Your task to perform on an android device: open chrome privacy settings Image 0: 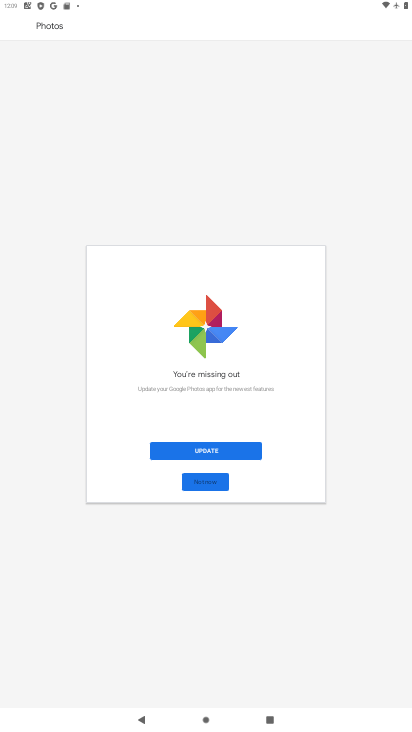
Step 0: press home button
Your task to perform on an android device: open chrome privacy settings Image 1: 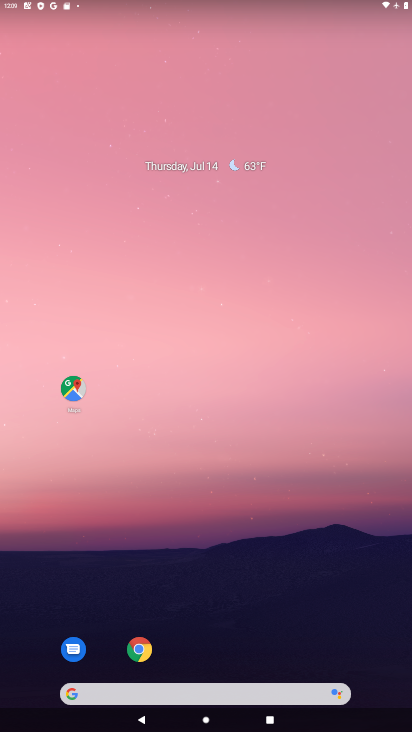
Step 1: click (138, 649)
Your task to perform on an android device: open chrome privacy settings Image 2: 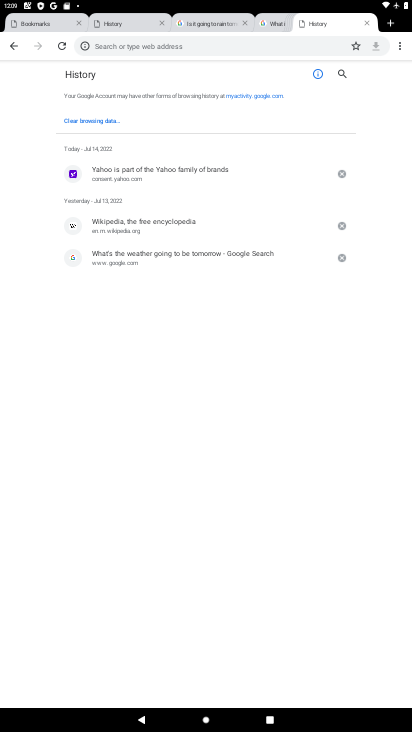
Step 2: click (398, 38)
Your task to perform on an android device: open chrome privacy settings Image 3: 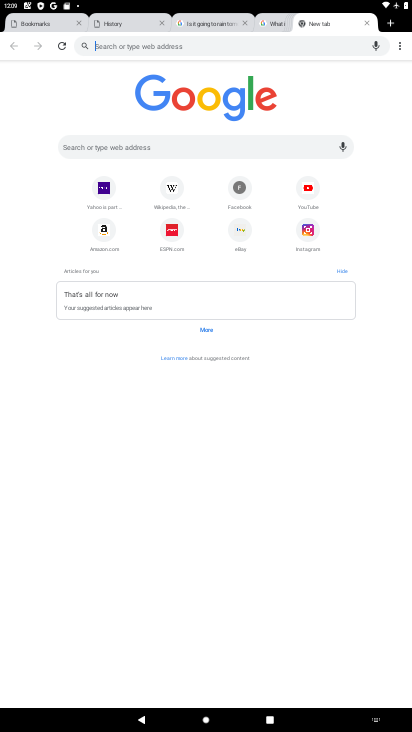
Step 3: click (400, 45)
Your task to perform on an android device: open chrome privacy settings Image 4: 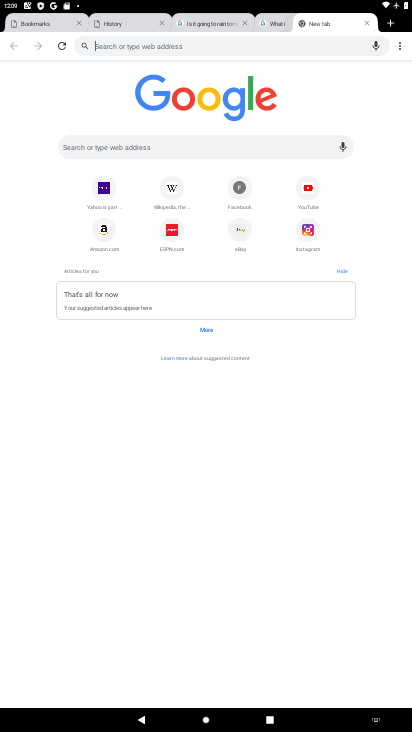
Step 4: click (400, 45)
Your task to perform on an android device: open chrome privacy settings Image 5: 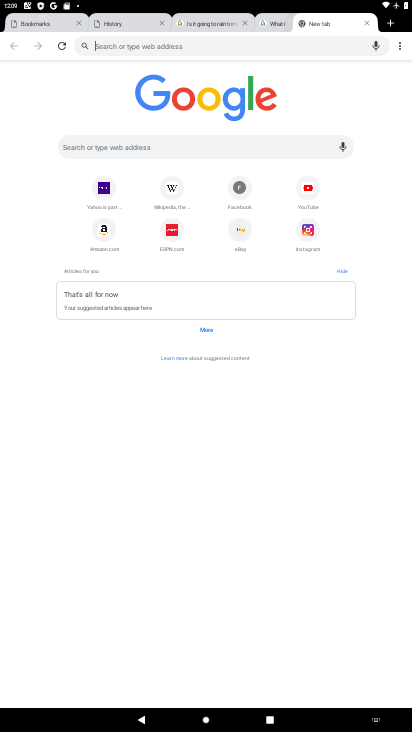
Step 5: click (403, 53)
Your task to perform on an android device: open chrome privacy settings Image 6: 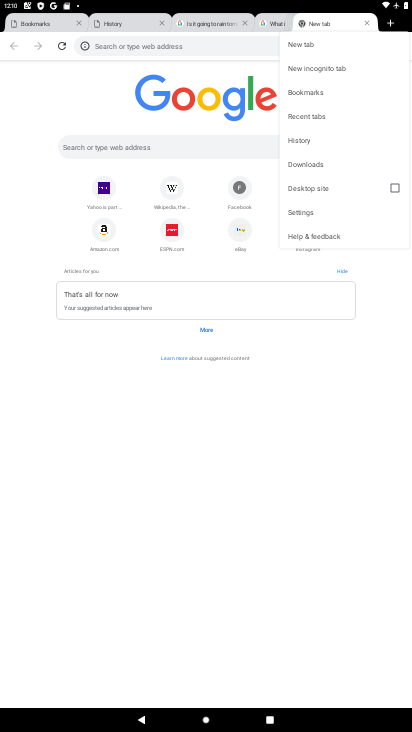
Step 6: click (319, 213)
Your task to perform on an android device: open chrome privacy settings Image 7: 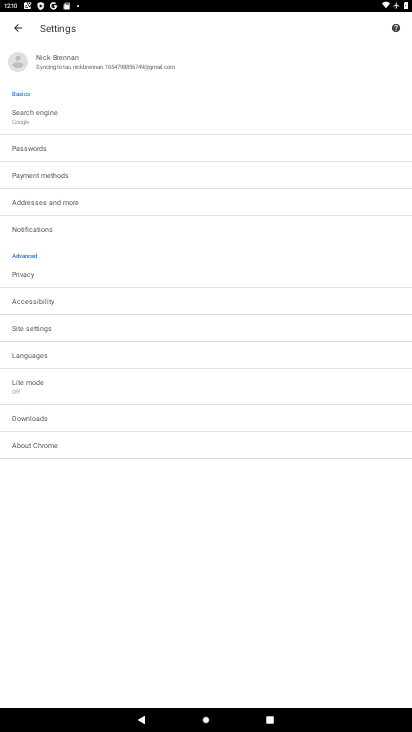
Step 7: click (26, 275)
Your task to perform on an android device: open chrome privacy settings Image 8: 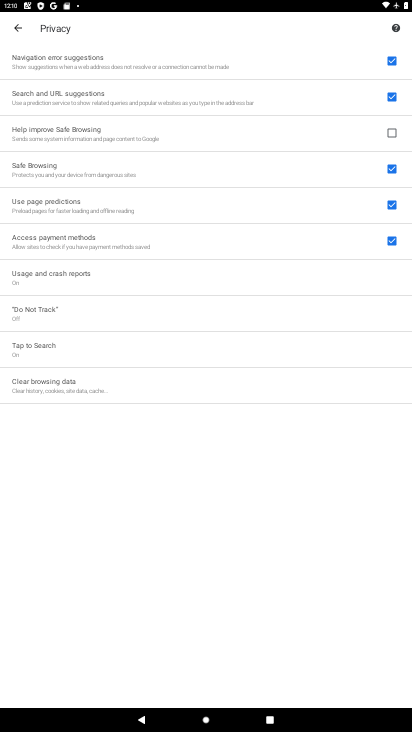
Step 8: task complete